Your task to perform on an android device: turn off notifications in google photos Image 0: 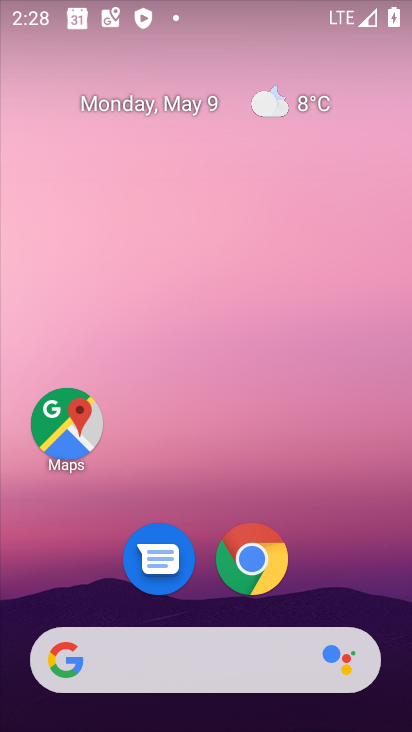
Step 0: drag from (328, 533) to (272, 28)
Your task to perform on an android device: turn off notifications in google photos Image 1: 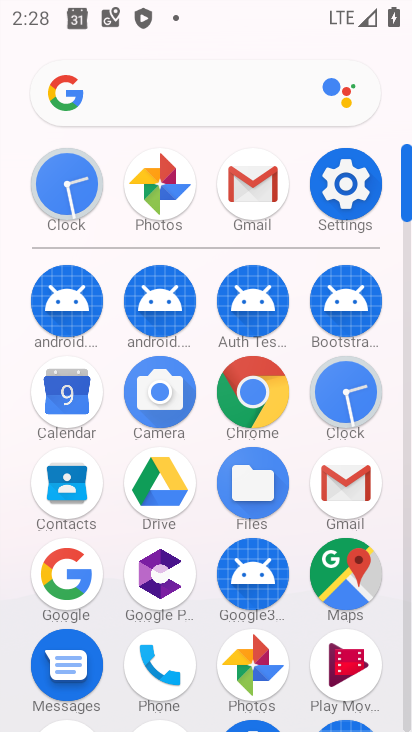
Step 1: click (154, 191)
Your task to perform on an android device: turn off notifications in google photos Image 2: 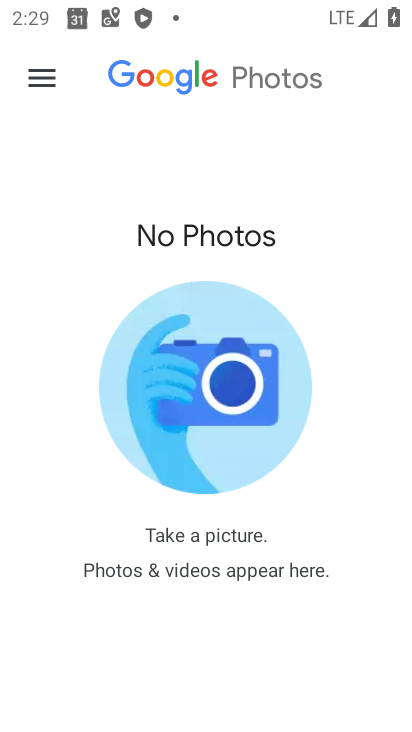
Step 2: click (42, 82)
Your task to perform on an android device: turn off notifications in google photos Image 3: 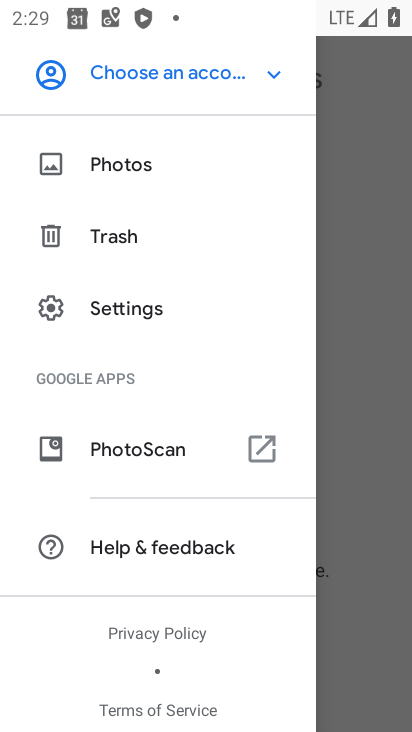
Step 3: click (121, 310)
Your task to perform on an android device: turn off notifications in google photos Image 4: 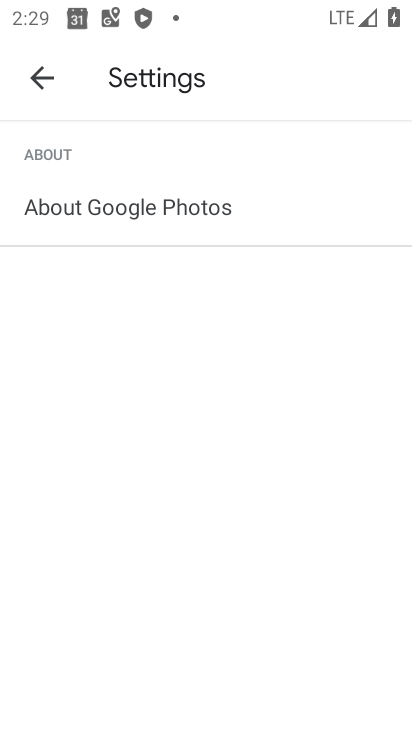
Step 4: task complete